Your task to perform on an android device: Go to Android settings Image 0: 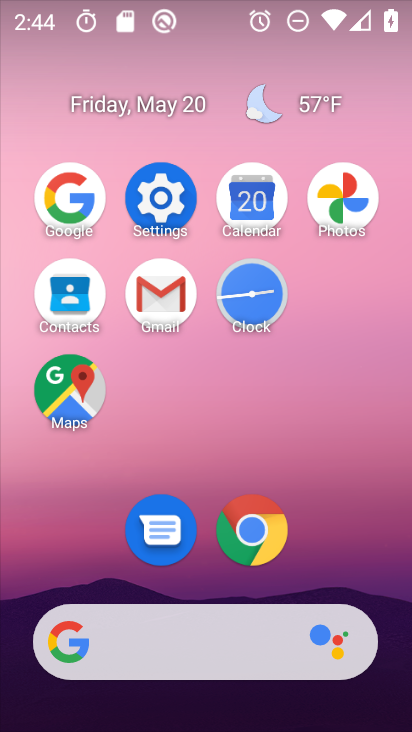
Step 0: click (137, 197)
Your task to perform on an android device: Go to Android settings Image 1: 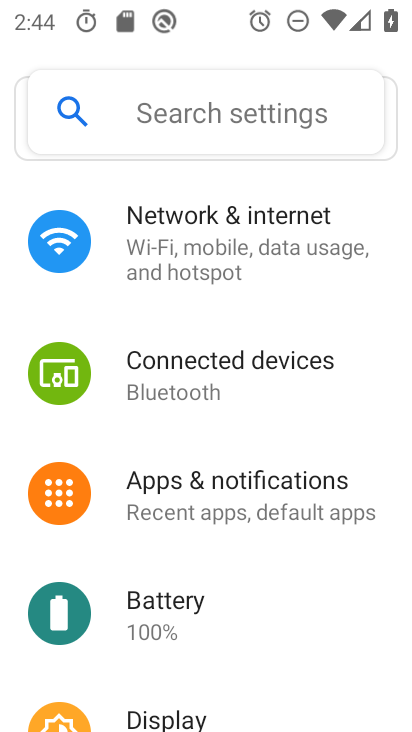
Step 1: task complete